Your task to perform on an android device: check storage Image 0: 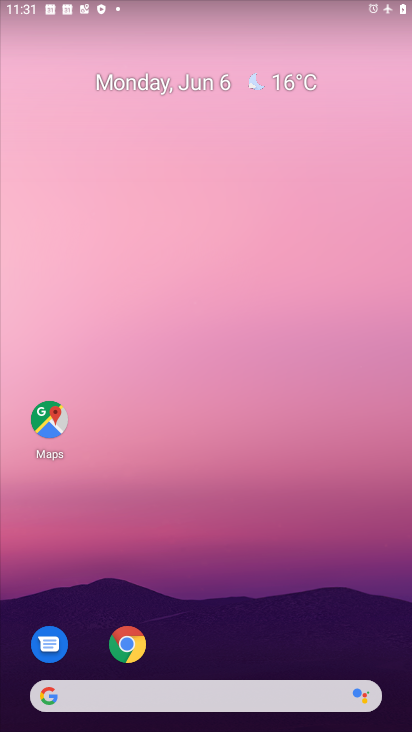
Step 0: drag from (218, 568) to (260, 34)
Your task to perform on an android device: check storage Image 1: 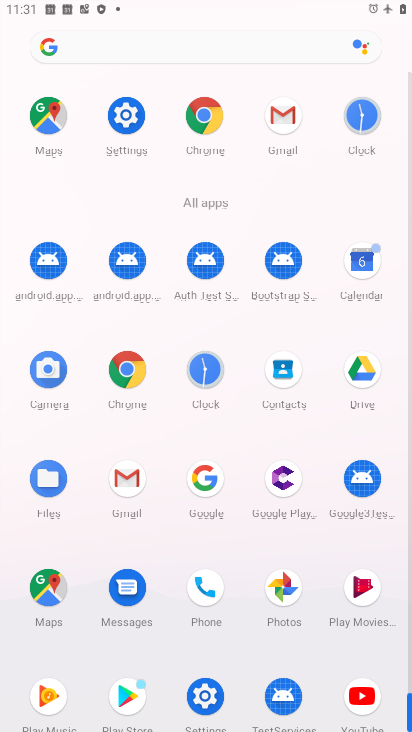
Step 1: click (207, 702)
Your task to perform on an android device: check storage Image 2: 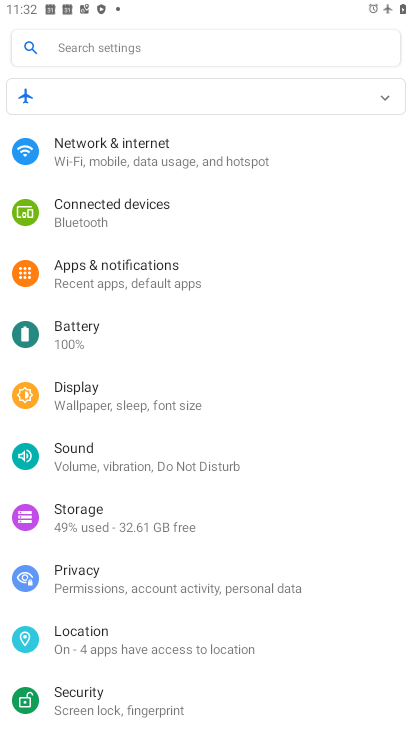
Step 2: click (161, 520)
Your task to perform on an android device: check storage Image 3: 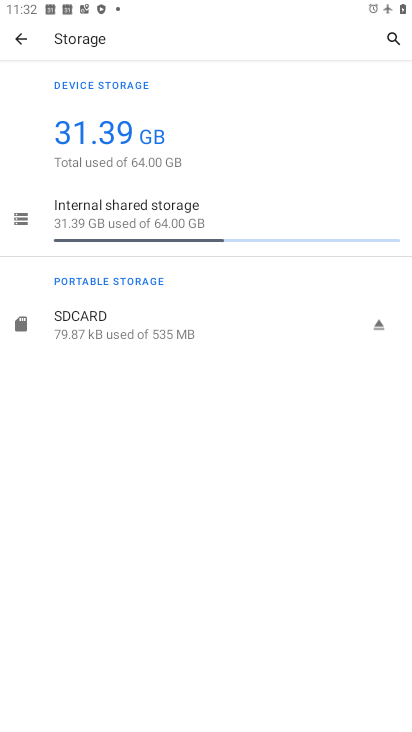
Step 3: task complete